Your task to perform on an android device: Open Google Maps and go to "Timeline" Image 0: 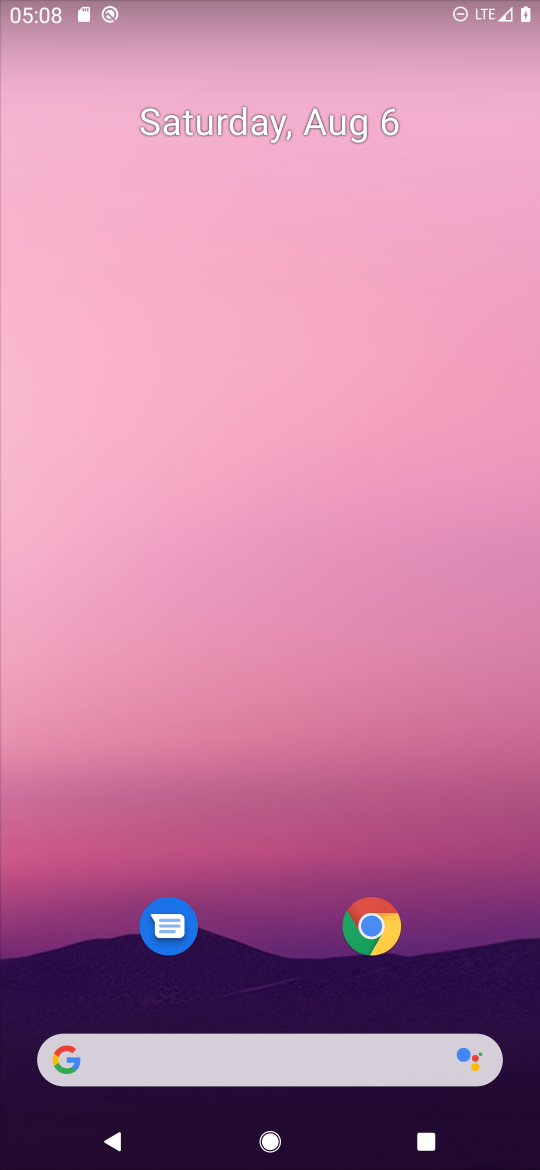
Step 0: drag from (275, 941) to (246, 307)
Your task to perform on an android device: Open Google Maps and go to "Timeline" Image 1: 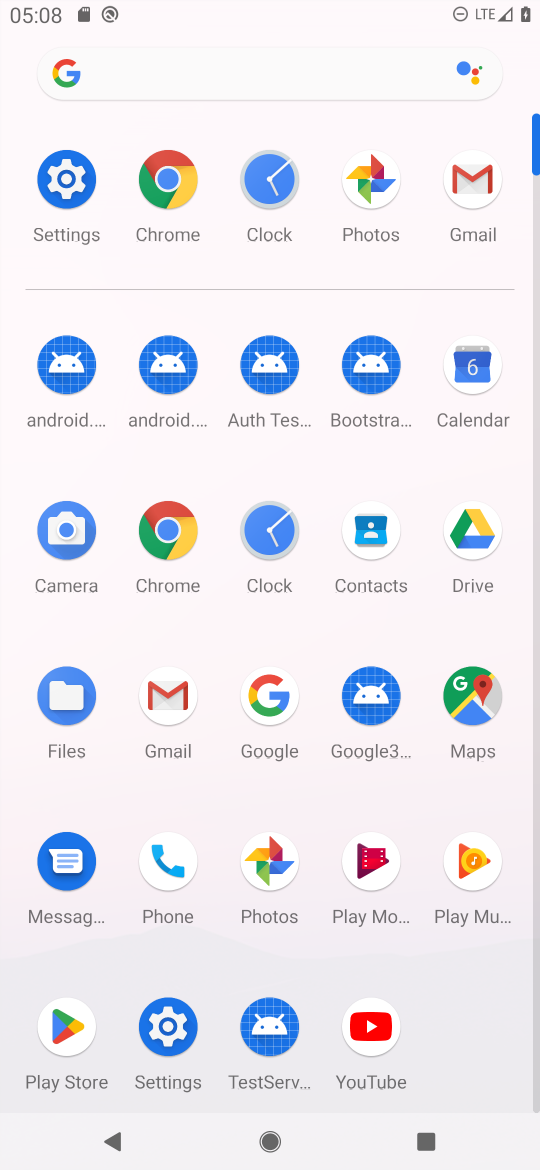
Step 1: click (475, 711)
Your task to perform on an android device: Open Google Maps and go to "Timeline" Image 2: 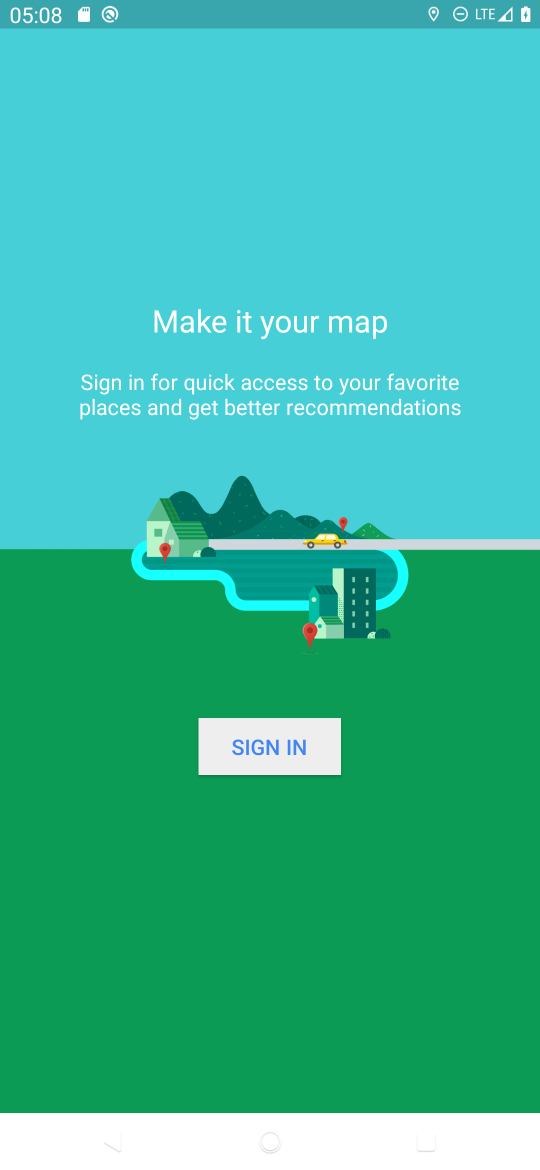
Step 2: task complete